Your task to perform on an android device: Open eBay Image 0: 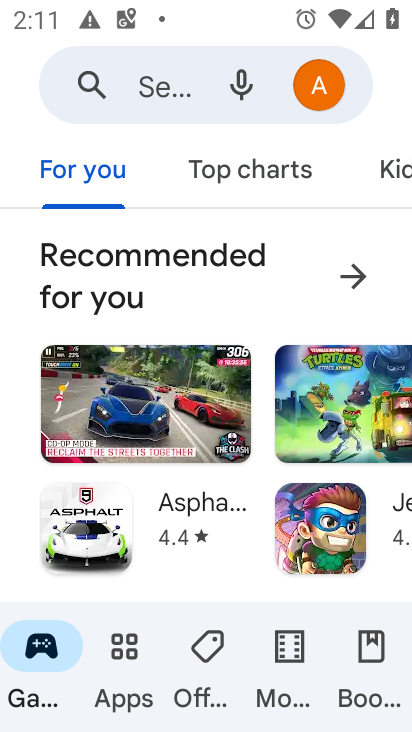
Step 0: press home button
Your task to perform on an android device: Open eBay Image 1: 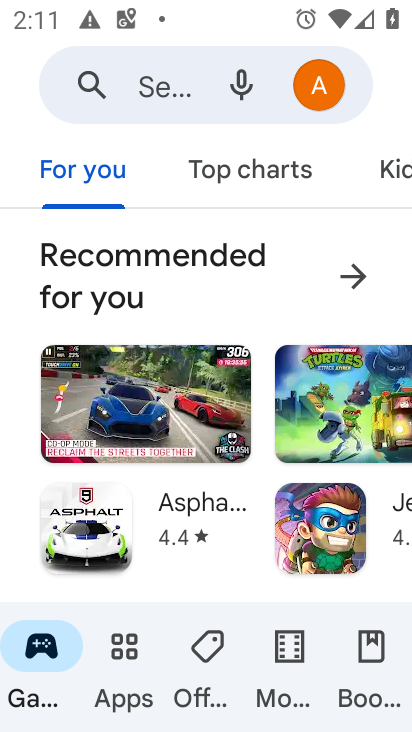
Step 1: press home button
Your task to perform on an android device: Open eBay Image 2: 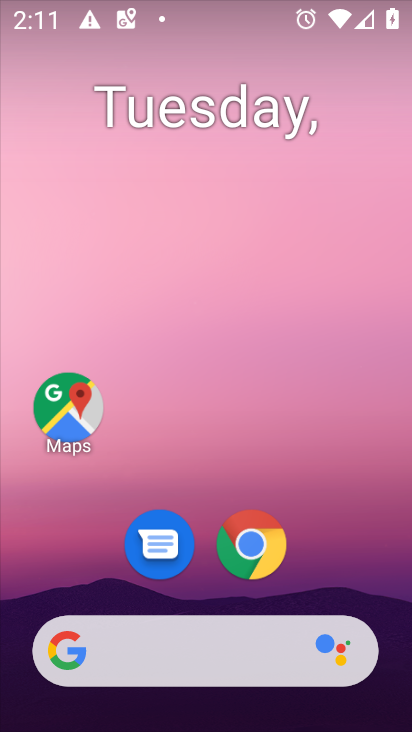
Step 2: drag from (344, 546) to (46, 0)
Your task to perform on an android device: Open eBay Image 3: 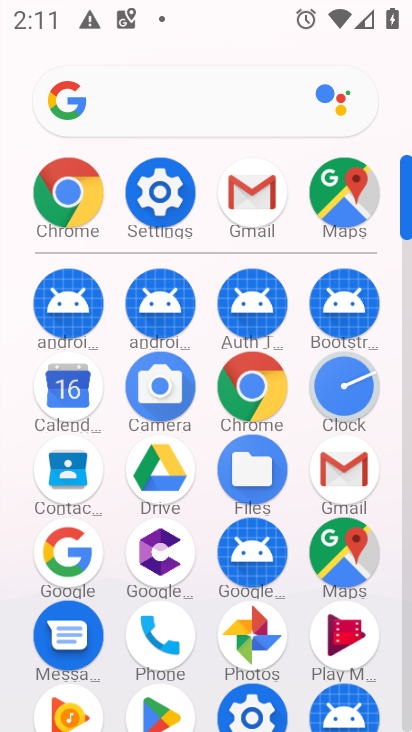
Step 3: click (253, 388)
Your task to perform on an android device: Open eBay Image 4: 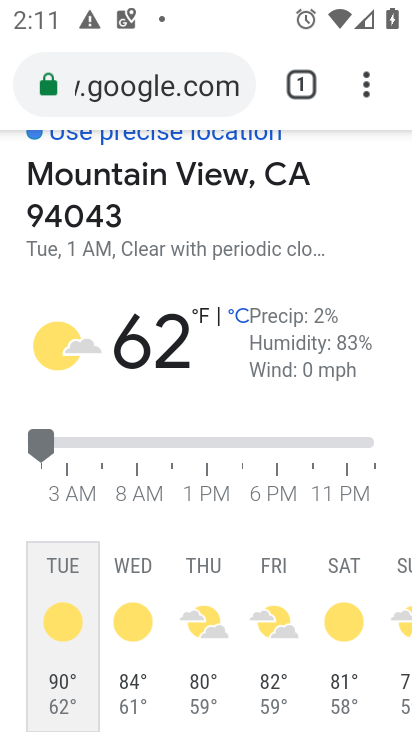
Step 4: click (158, 77)
Your task to perform on an android device: Open eBay Image 5: 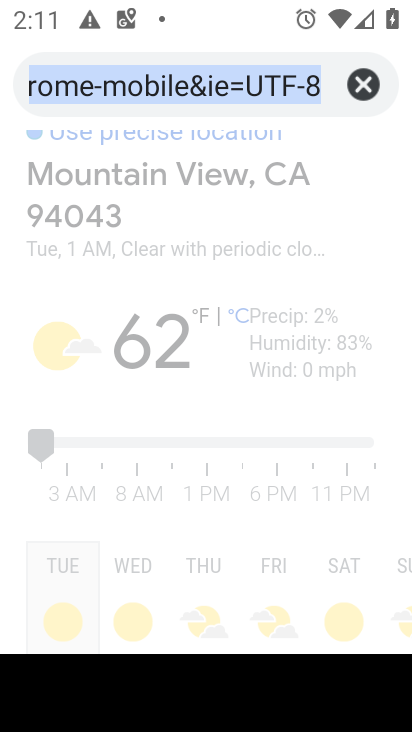
Step 5: type "ebay"
Your task to perform on an android device: Open eBay Image 6: 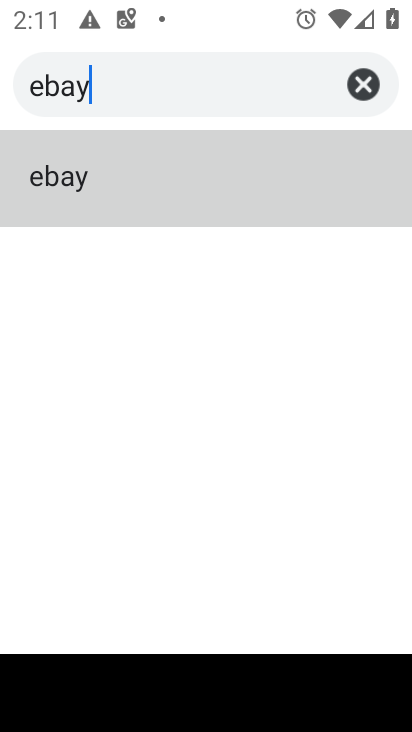
Step 6: click (53, 167)
Your task to perform on an android device: Open eBay Image 7: 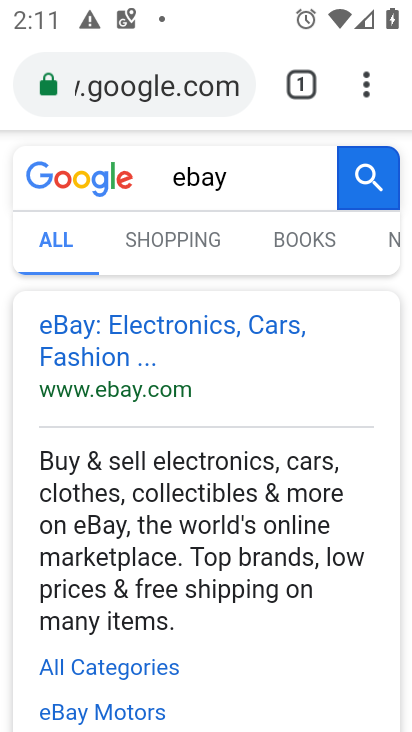
Step 7: click (136, 323)
Your task to perform on an android device: Open eBay Image 8: 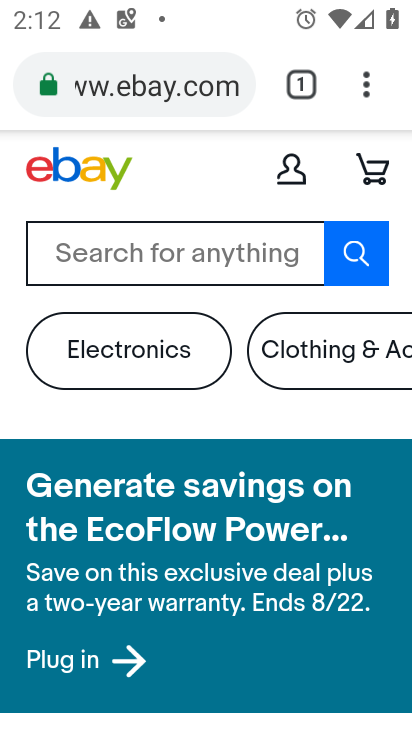
Step 8: task complete